Your task to perform on an android device: Go to internet settings Image 0: 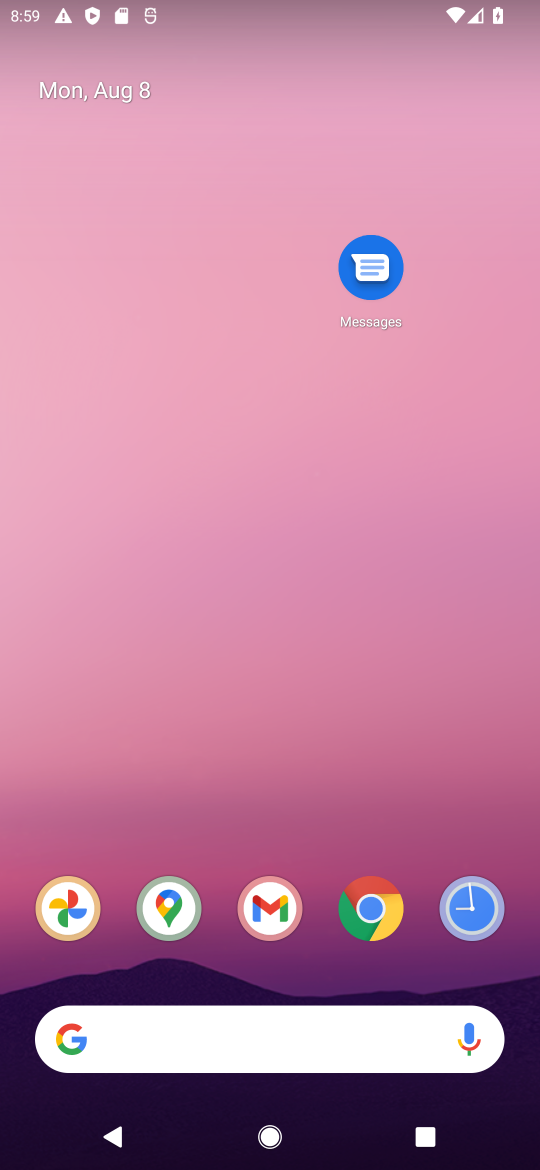
Step 0: click (285, 660)
Your task to perform on an android device: Go to internet settings Image 1: 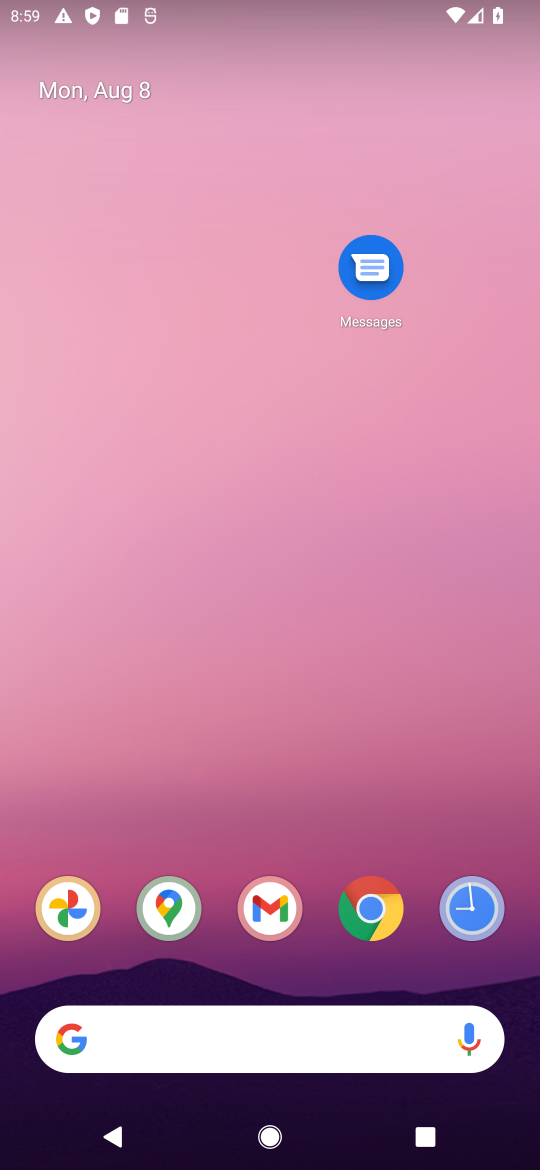
Step 1: drag from (269, 8) to (158, 414)
Your task to perform on an android device: Go to internet settings Image 2: 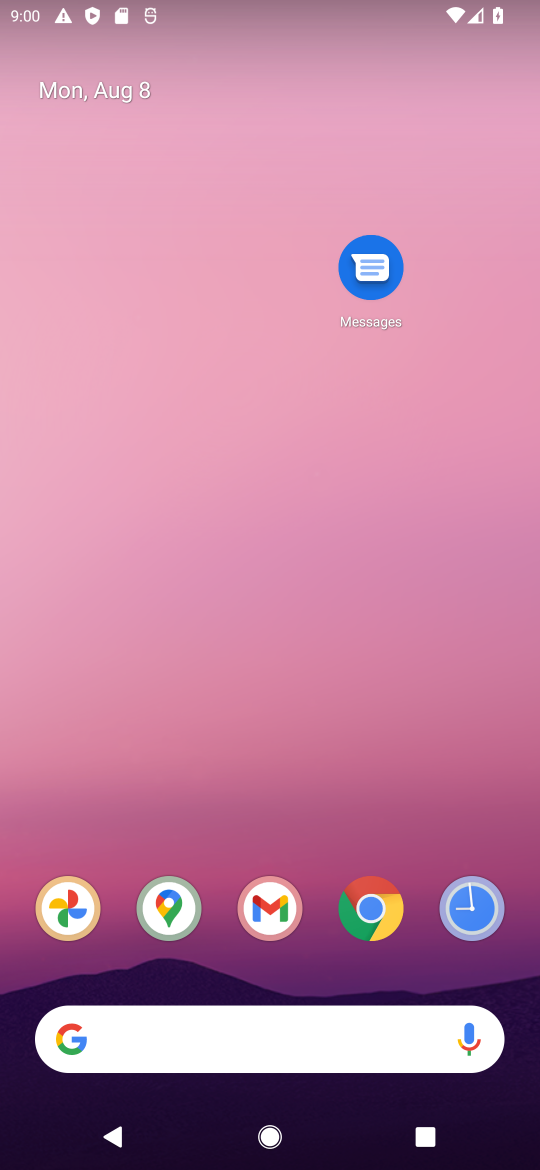
Step 2: drag from (213, 19) to (161, 753)
Your task to perform on an android device: Go to internet settings Image 3: 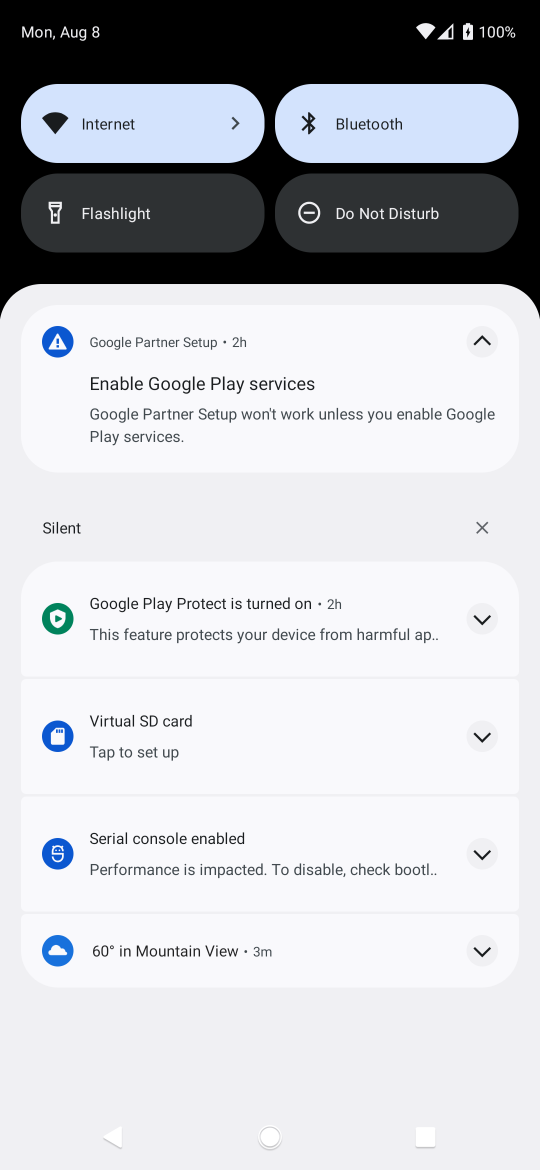
Step 3: click (146, 126)
Your task to perform on an android device: Go to internet settings Image 4: 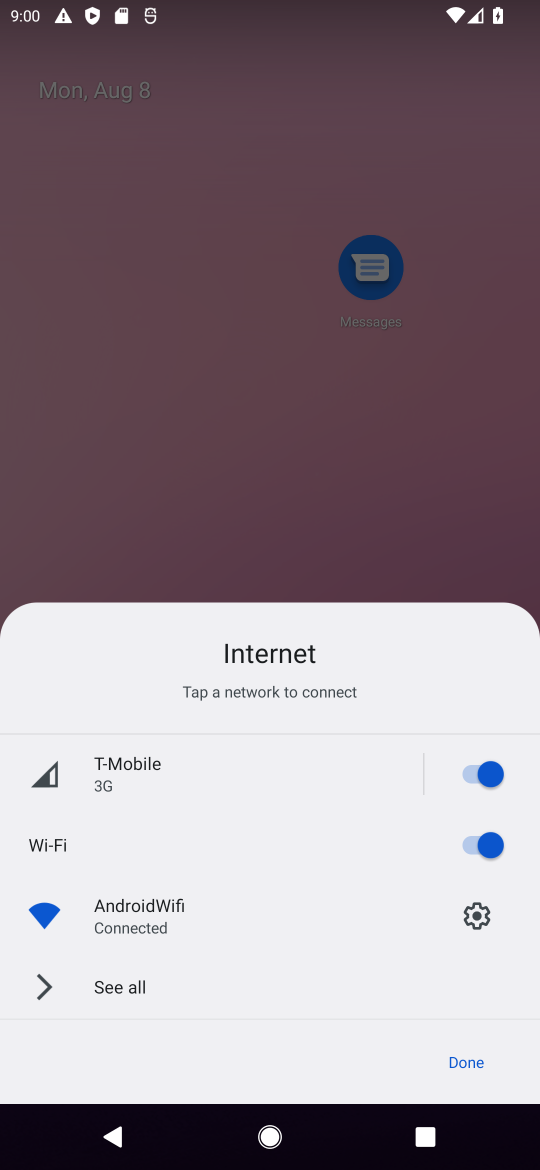
Step 4: task complete